Your task to perform on an android device: clear history in the chrome app Image 0: 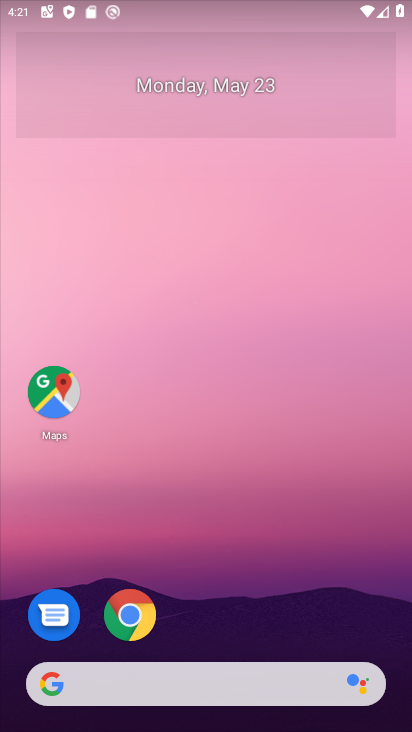
Step 0: click (132, 614)
Your task to perform on an android device: clear history in the chrome app Image 1: 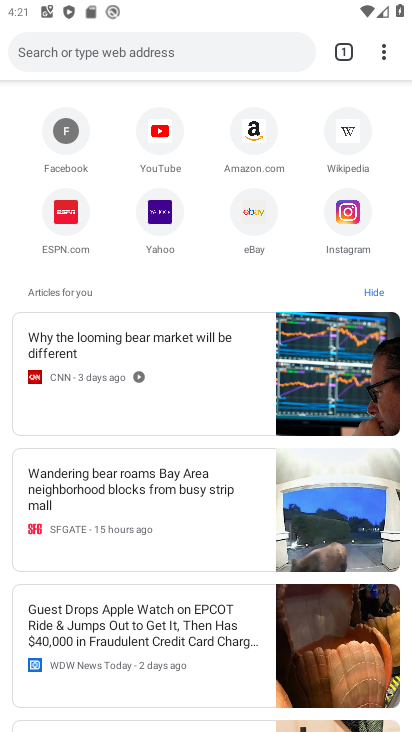
Step 1: task complete